Your task to perform on an android device: move an email to a new category in the gmail app Image 0: 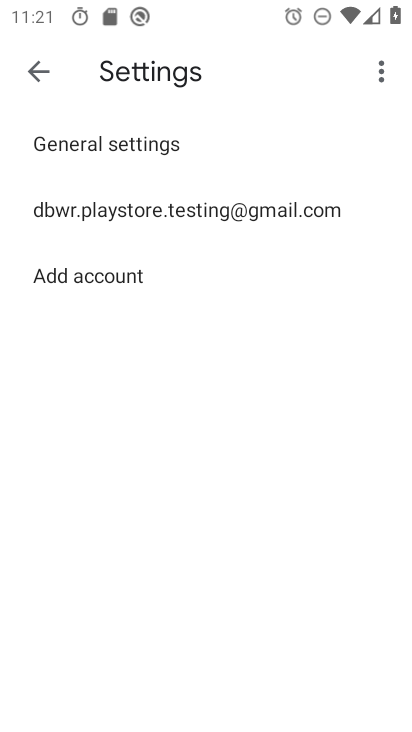
Step 0: press home button
Your task to perform on an android device: move an email to a new category in the gmail app Image 1: 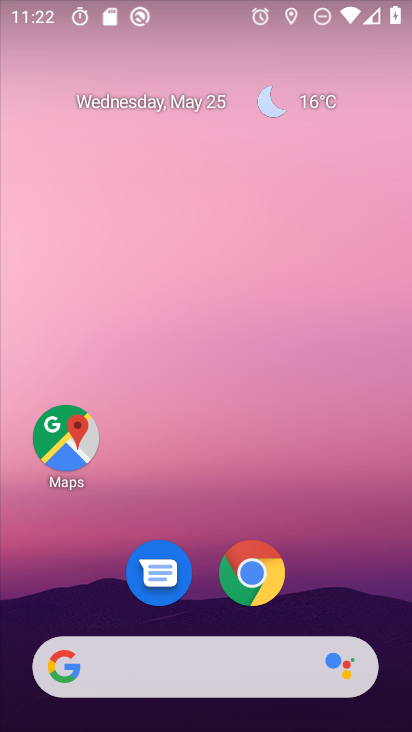
Step 1: drag from (352, 634) to (304, 3)
Your task to perform on an android device: move an email to a new category in the gmail app Image 2: 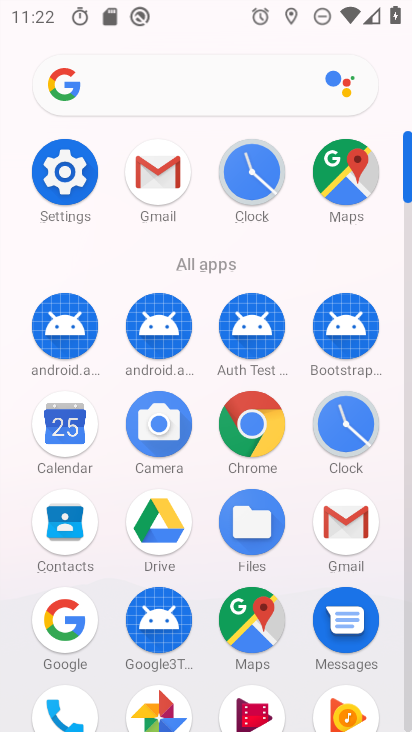
Step 2: click (151, 188)
Your task to perform on an android device: move an email to a new category in the gmail app Image 3: 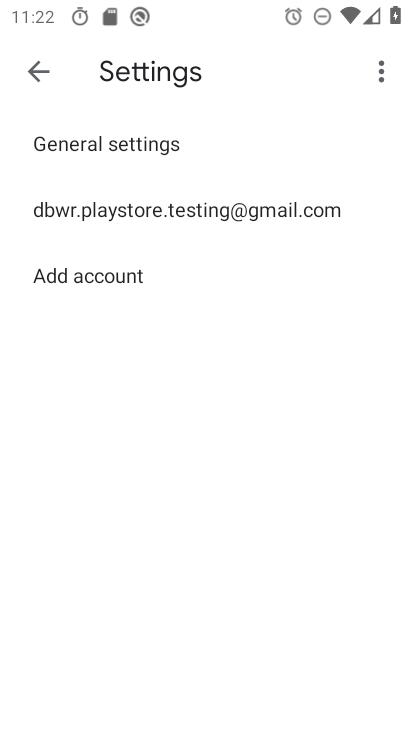
Step 3: click (37, 75)
Your task to perform on an android device: move an email to a new category in the gmail app Image 4: 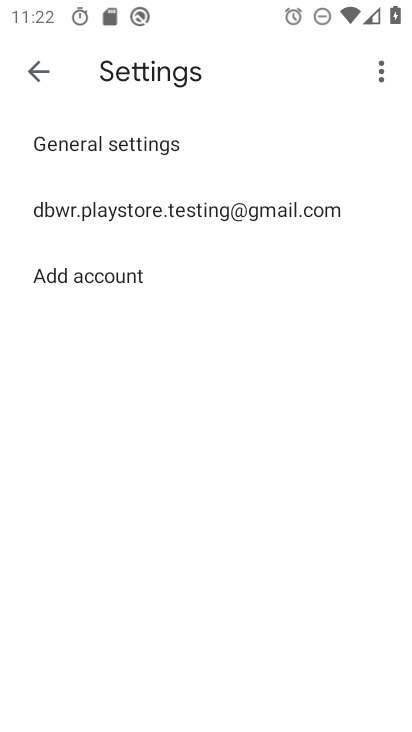
Step 4: click (37, 75)
Your task to perform on an android device: move an email to a new category in the gmail app Image 5: 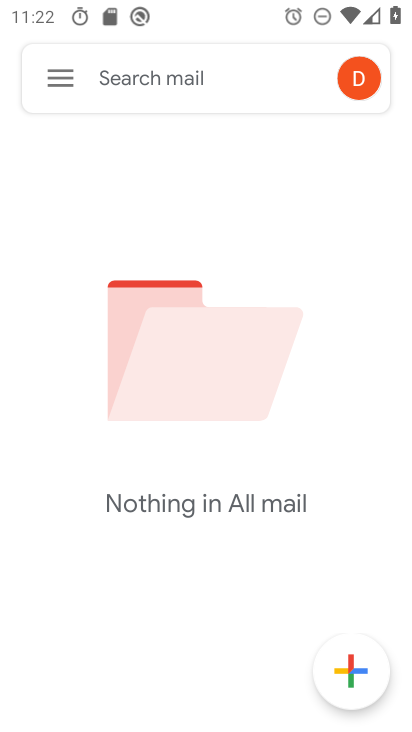
Step 5: click (57, 82)
Your task to perform on an android device: move an email to a new category in the gmail app Image 6: 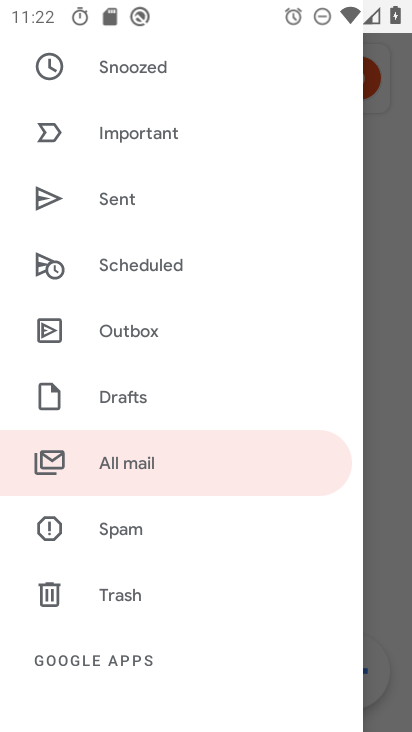
Step 6: drag from (189, 563) to (194, 229)
Your task to perform on an android device: move an email to a new category in the gmail app Image 7: 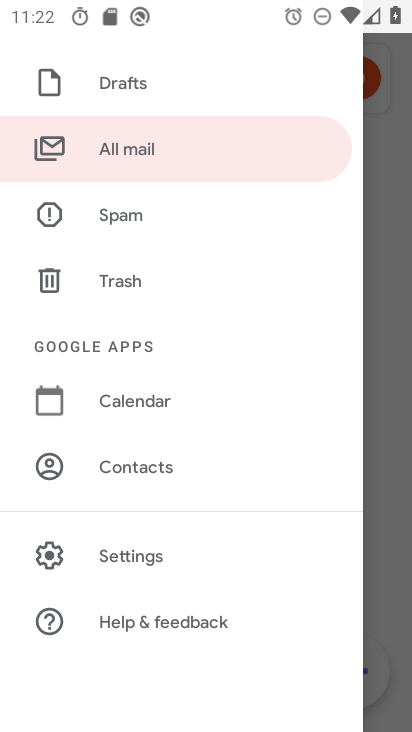
Step 7: click (145, 558)
Your task to perform on an android device: move an email to a new category in the gmail app Image 8: 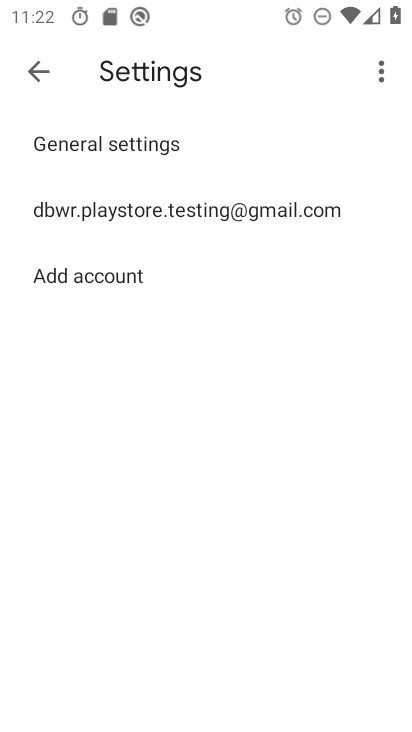
Step 8: click (119, 218)
Your task to perform on an android device: move an email to a new category in the gmail app Image 9: 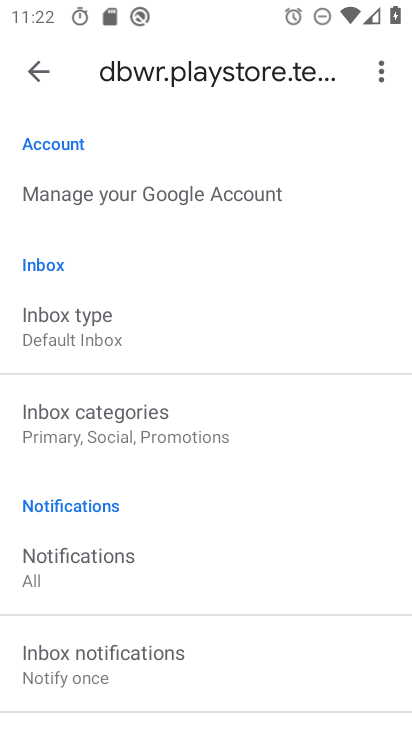
Step 9: task complete